Your task to perform on an android device: Search for vegetarian restaurants on Maps Image 0: 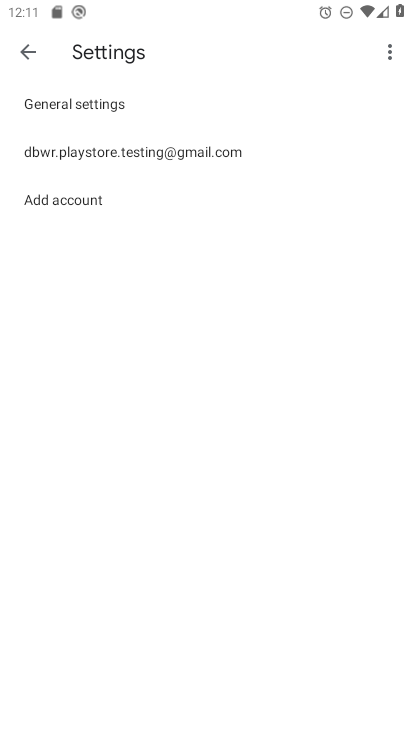
Step 0: press home button
Your task to perform on an android device: Search for vegetarian restaurants on Maps Image 1: 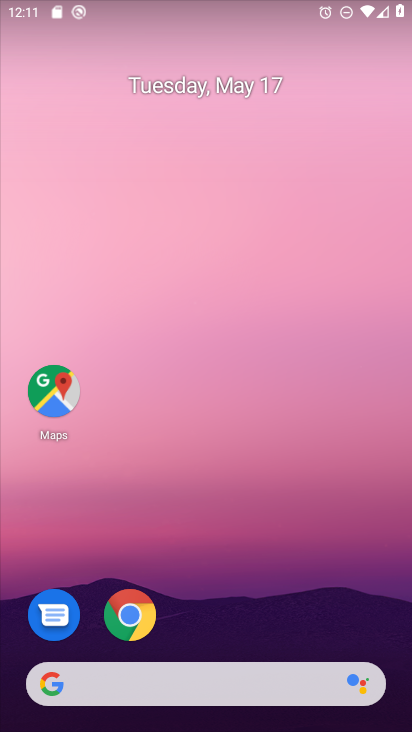
Step 1: click (55, 393)
Your task to perform on an android device: Search for vegetarian restaurants on Maps Image 2: 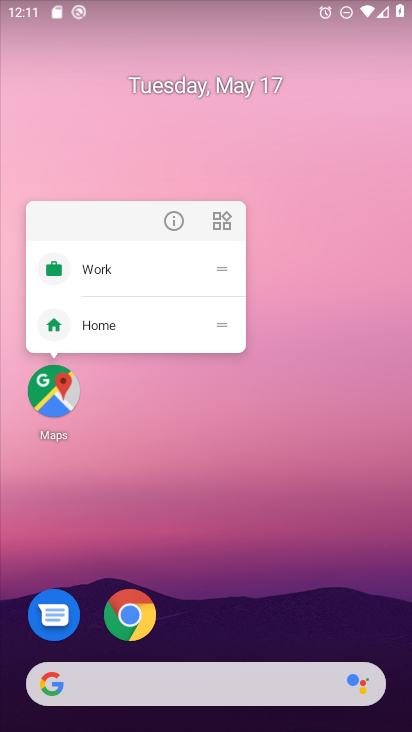
Step 2: click (56, 399)
Your task to perform on an android device: Search for vegetarian restaurants on Maps Image 3: 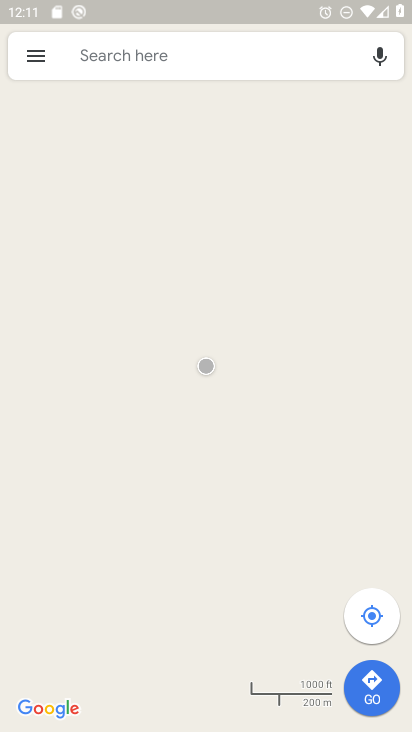
Step 3: click (162, 63)
Your task to perform on an android device: Search for vegetarian restaurants on Maps Image 4: 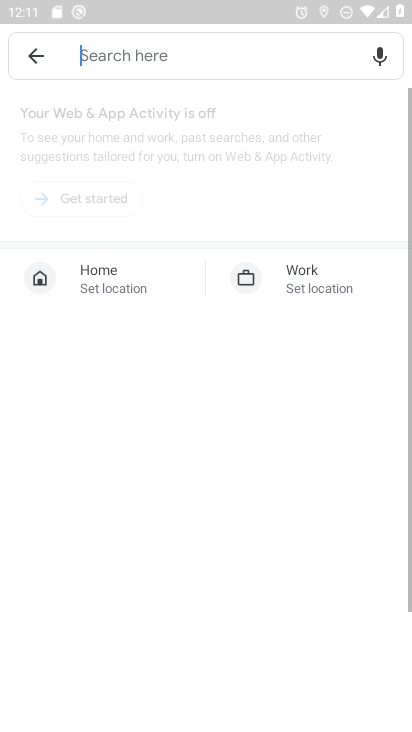
Step 4: click (158, 55)
Your task to perform on an android device: Search for vegetarian restaurants on Maps Image 5: 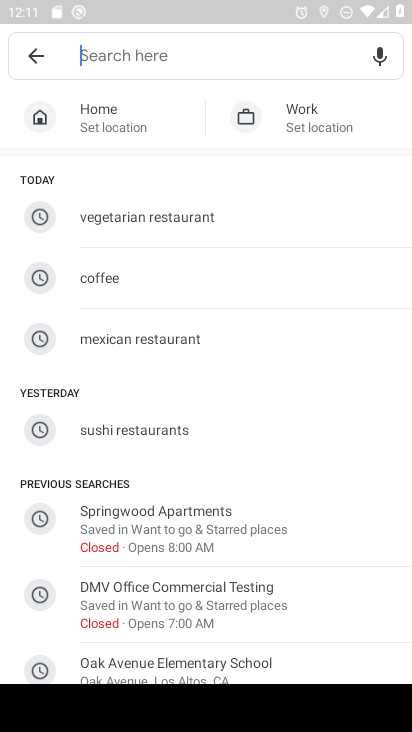
Step 5: drag from (171, 641) to (178, 294)
Your task to perform on an android device: Search for vegetarian restaurants on Maps Image 6: 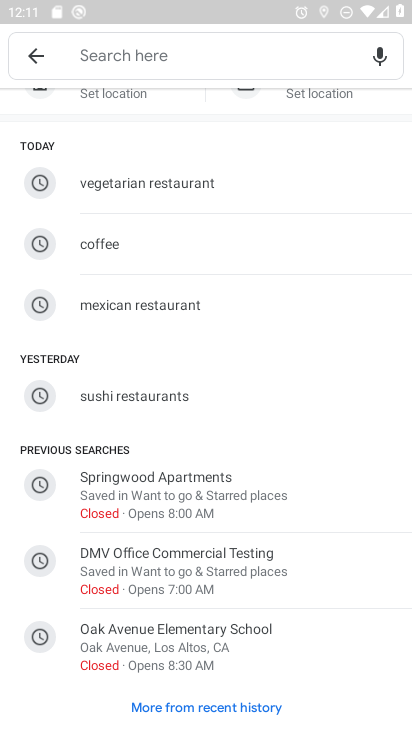
Step 6: click (153, 709)
Your task to perform on an android device: Search for vegetarian restaurants on Maps Image 7: 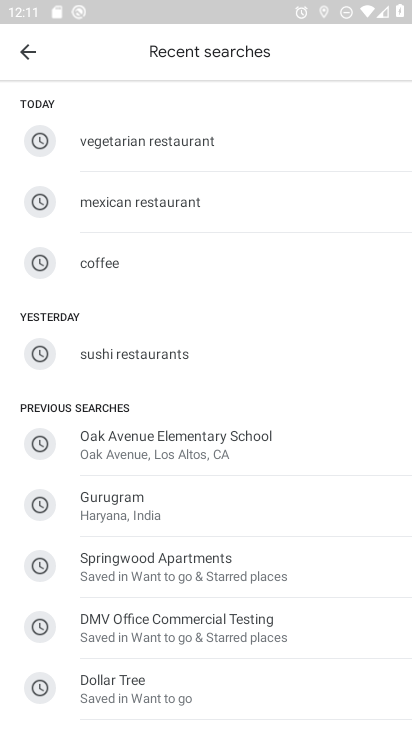
Step 7: click (153, 142)
Your task to perform on an android device: Search for vegetarian restaurants on Maps Image 8: 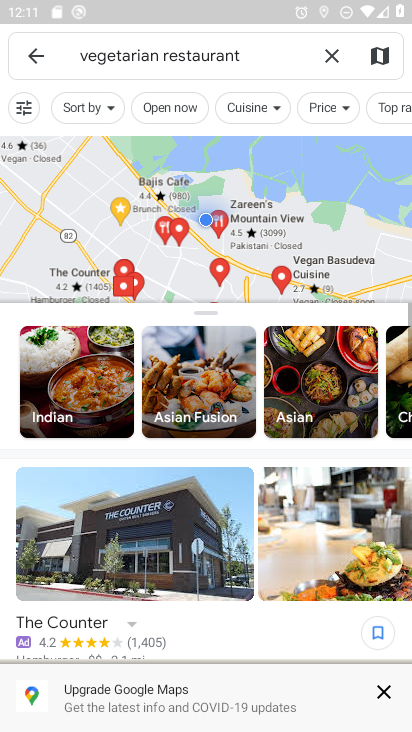
Step 8: task complete